Your task to perform on an android device: open app "Grab" (install if not already installed) and go to login screen Image 0: 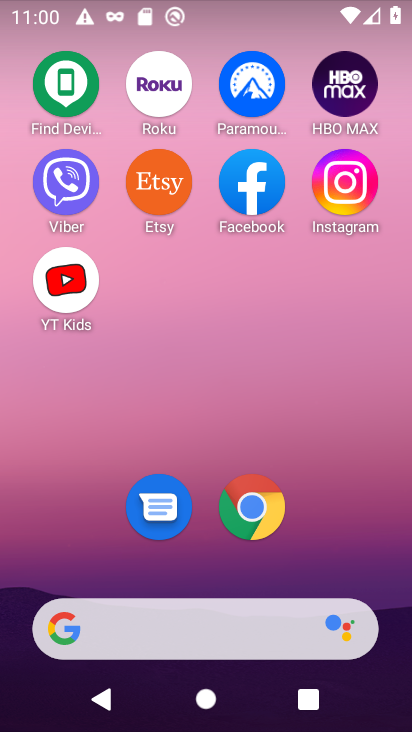
Step 0: press home button
Your task to perform on an android device: open app "Grab" (install if not already installed) and go to login screen Image 1: 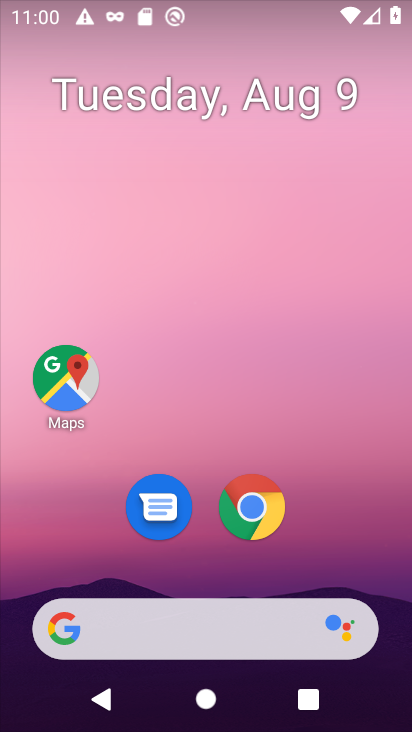
Step 1: drag from (177, 634) to (195, 181)
Your task to perform on an android device: open app "Grab" (install if not already installed) and go to login screen Image 2: 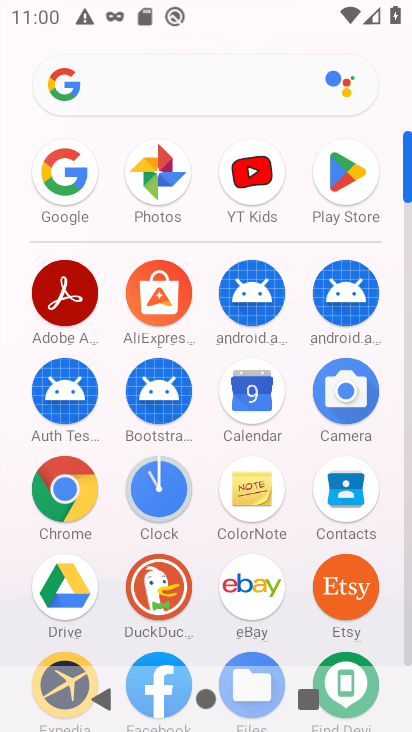
Step 2: click (350, 173)
Your task to perform on an android device: open app "Grab" (install if not already installed) and go to login screen Image 3: 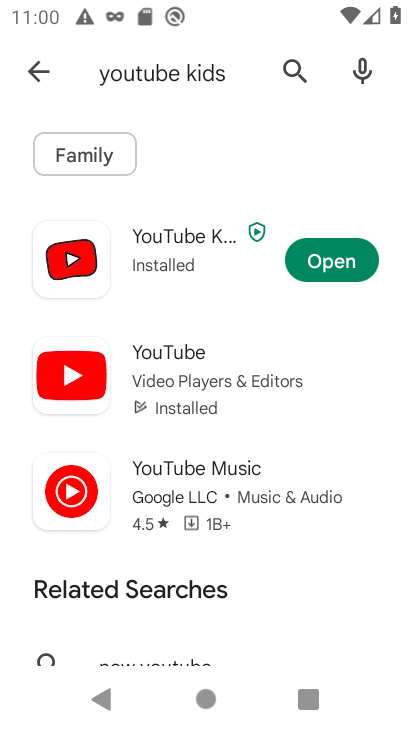
Step 3: click (293, 70)
Your task to perform on an android device: open app "Grab" (install if not already installed) and go to login screen Image 4: 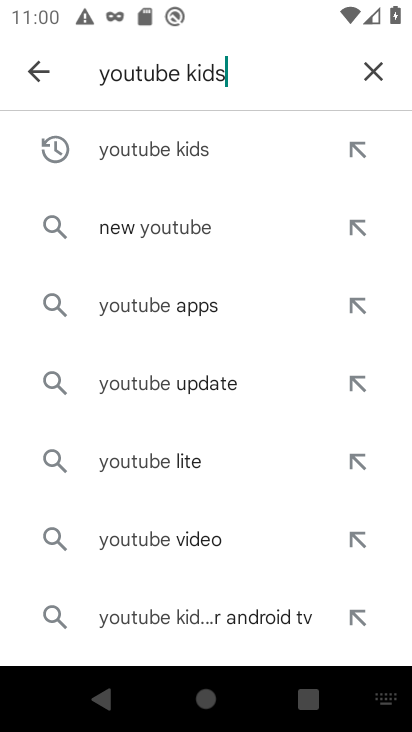
Step 4: click (373, 74)
Your task to perform on an android device: open app "Grab" (install if not already installed) and go to login screen Image 5: 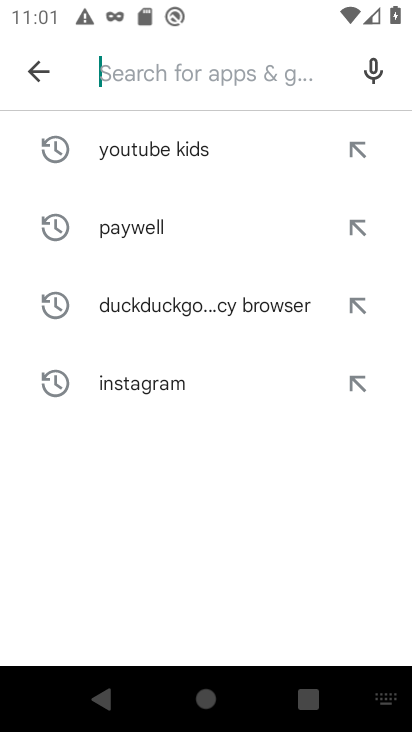
Step 5: type "Grab"
Your task to perform on an android device: open app "Grab" (install if not already installed) and go to login screen Image 6: 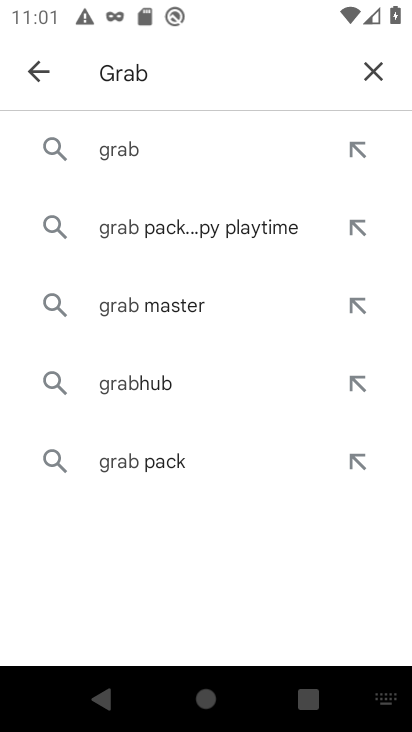
Step 6: click (131, 153)
Your task to perform on an android device: open app "Grab" (install if not already installed) and go to login screen Image 7: 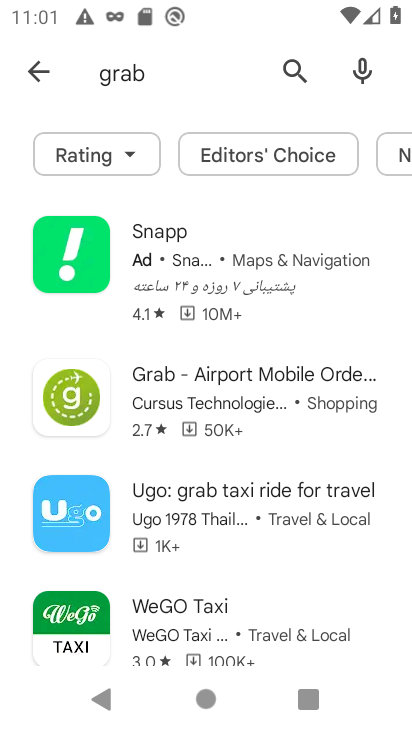
Step 7: task complete